Your task to perform on an android device: Go to Wikipedia Image 0: 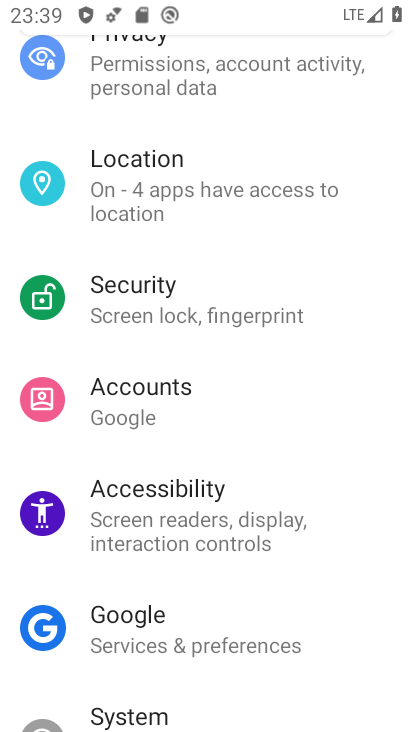
Step 0: press home button
Your task to perform on an android device: Go to Wikipedia Image 1: 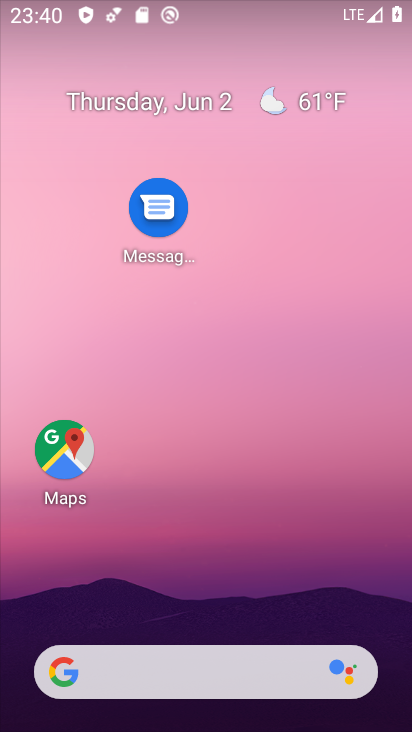
Step 1: drag from (197, 632) to (252, 371)
Your task to perform on an android device: Go to Wikipedia Image 2: 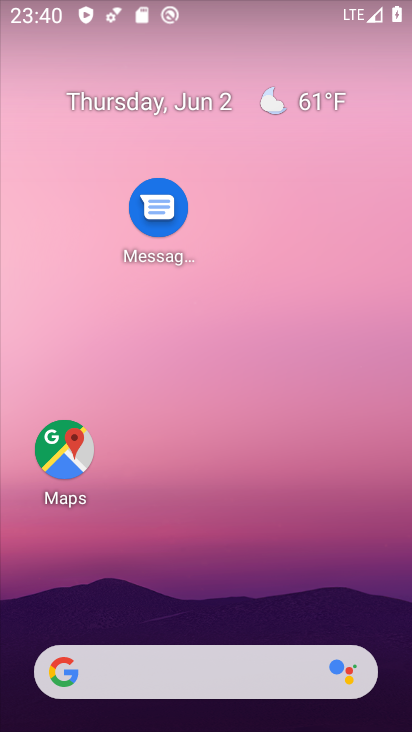
Step 2: drag from (223, 641) to (175, 78)
Your task to perform on an android device: Go to Wikipedia Image 3: 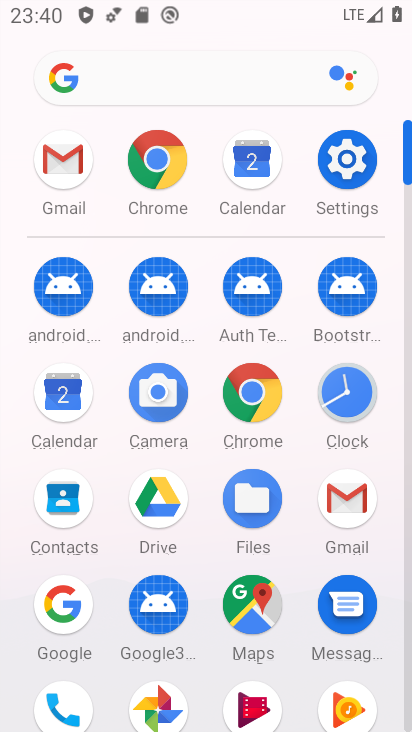
Step 3: click (235, 374)
Your task to perform on an android device: Go to Wikipedia Image 4: 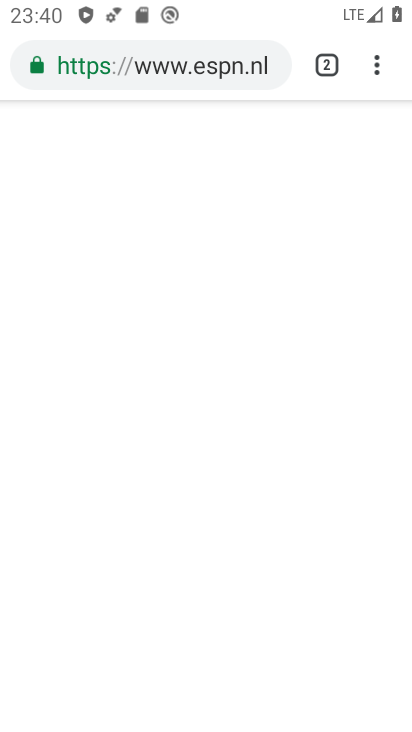
Step 4: click (317, 70)
Your task to perform on an android device: Go to Wikipedia Image 5: 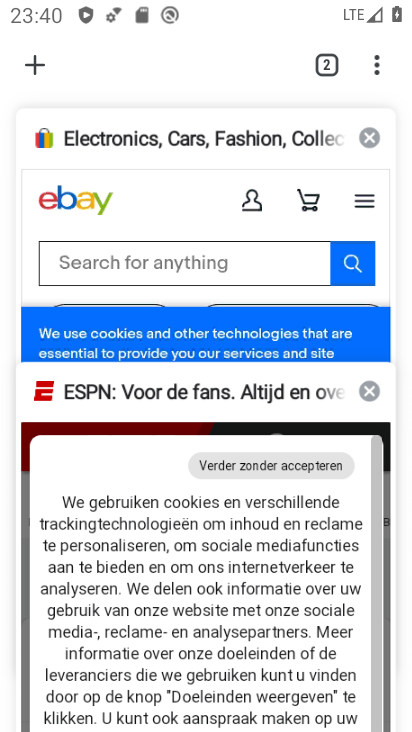
Step 5: click (318, 66)
Your task to perform on an android device: Go to Wikipedia Image 6: 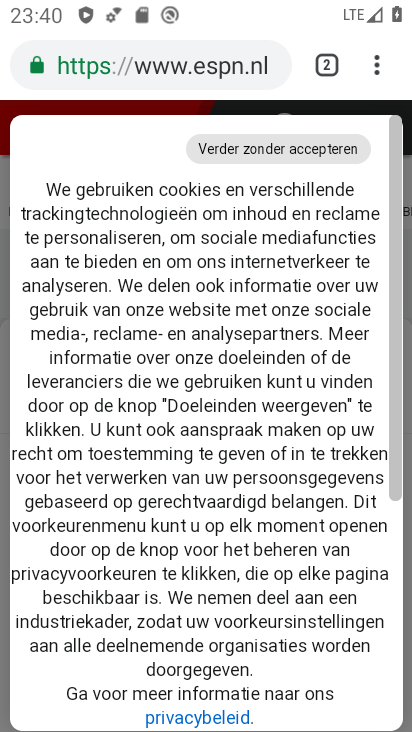
Step 6: click (318, 66)
Your task to perform on an android device: Go to Wikipedia Image 7: 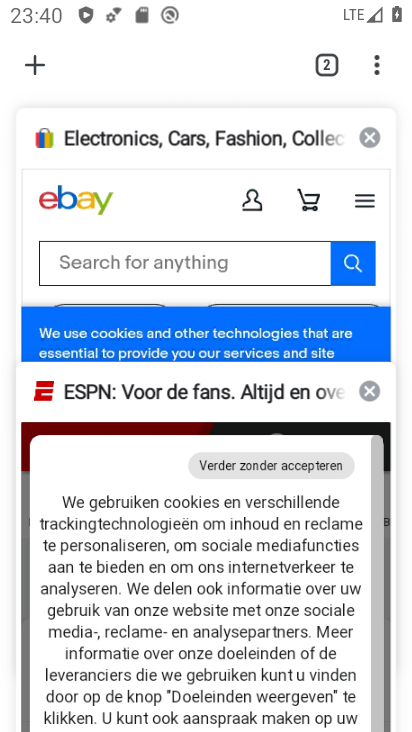
Step 7: click (29, 63)
Your task to perform on an android device: Go to Wikipedia Image 8: 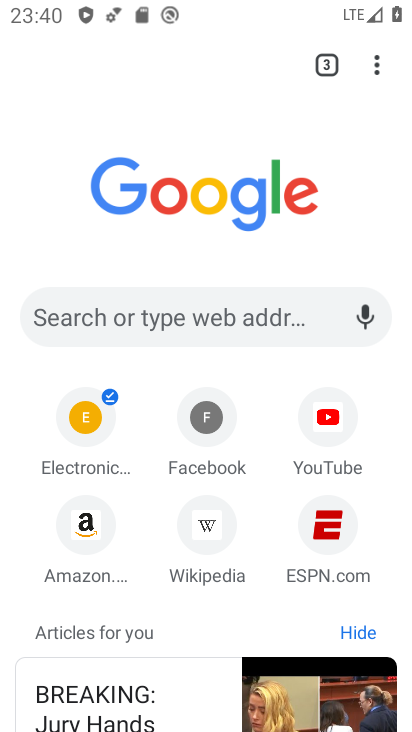
Step 8: click (212, 527)
Your task to perform on an android device: Go to Wikipedia Image 9: 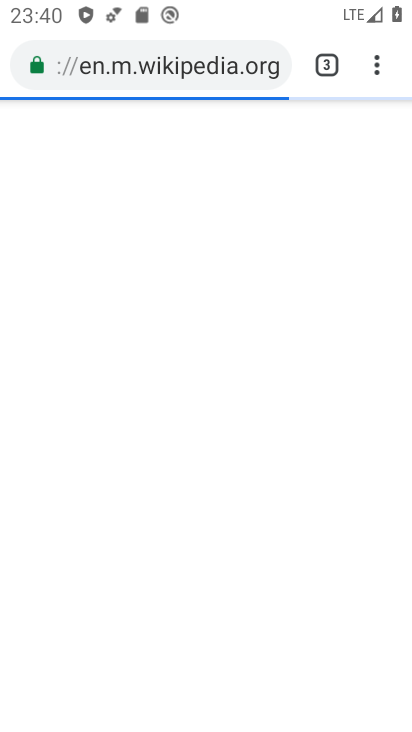
Step 9: task complete